Your task to perform on an android device: Show me recent news Image 0: 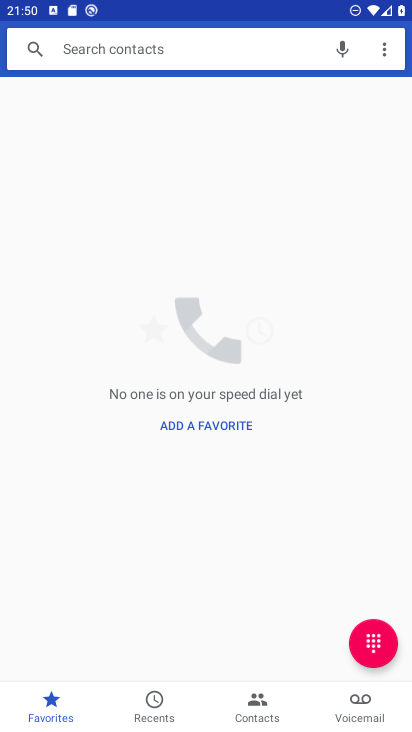
Step 0: press home button
Your task to perform on an android device: Show me recent news Image 1: 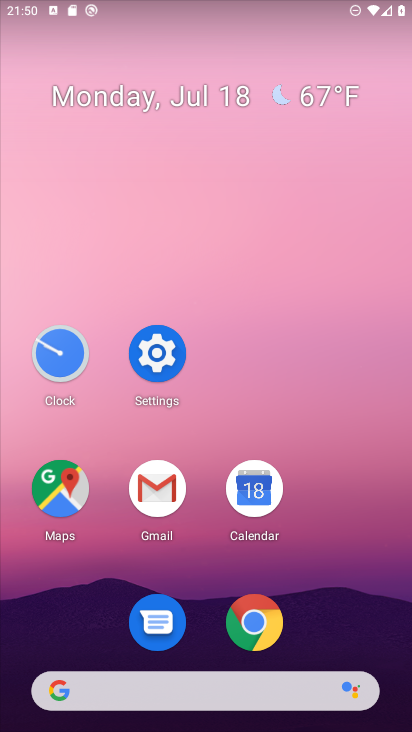
Step 1: task complete